Your task to perform on an android device: change the clock display to digital Image 0: 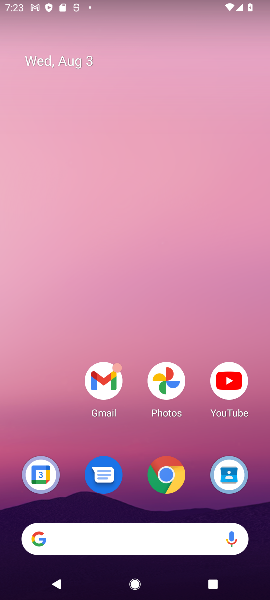
Step 0: drag from (134, 443) to (109, 248)
Your task to perform on an android device: change the clock display to digital Image 1: 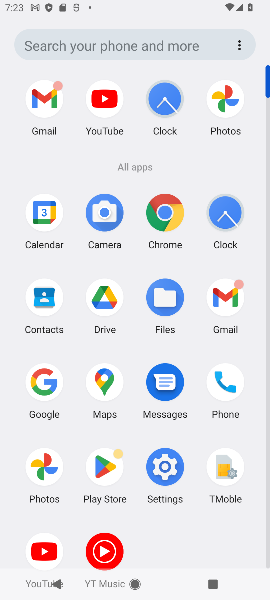
Step 1: click (226, 225)
Your task to perform on an android device: change the clock display to digital Image 2: 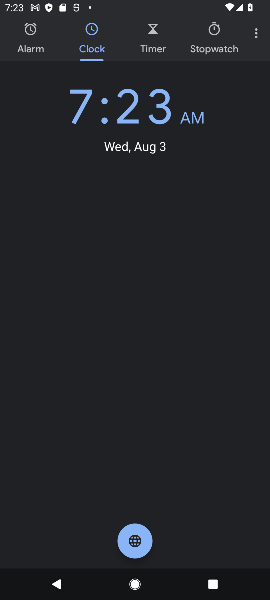
Step 2: click (257, 43)
Your task to perform on an android device: change the clock display to digital Image 3: 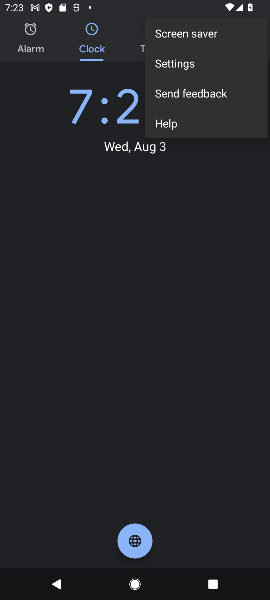
Step 3: click (184, 69)
Your task to perform on an android device: change the clock display to digital Image 4: 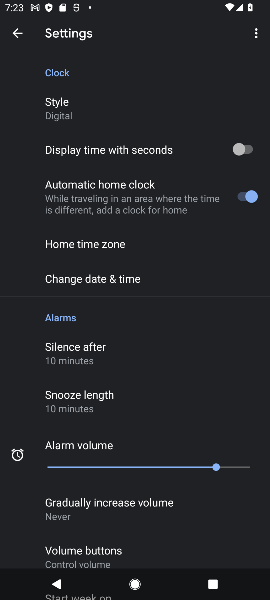
Step 4: task complete